Your task to perform on an android device: move an email to a new category in the gmail app Image 0: 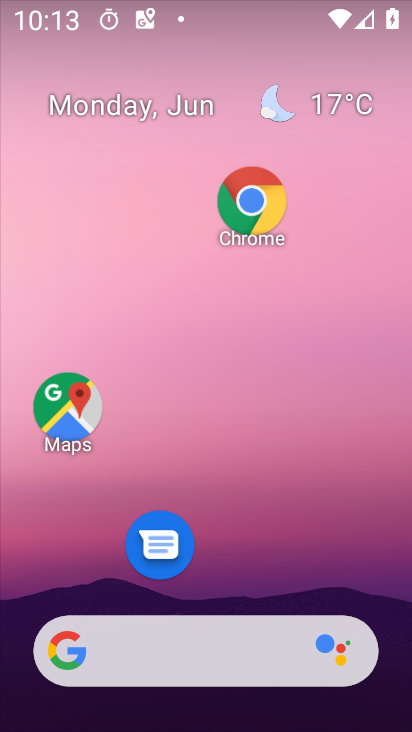
Step 0: drag from (228, 590) to (151, 48)
Your task to perform on an android device: move an email to a new category in the gmail app Image 1: 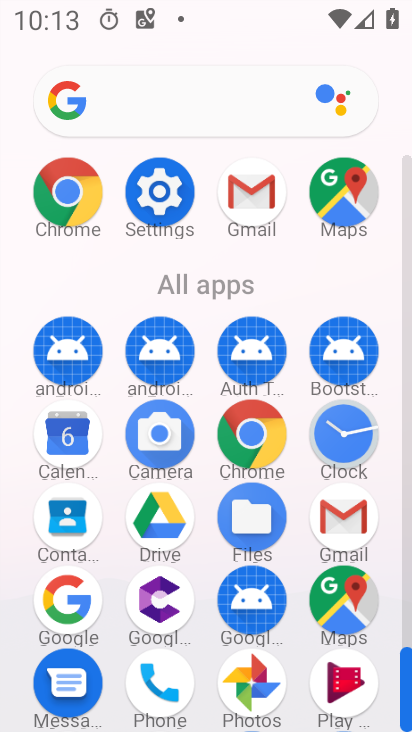
Step 1: click (338, 501)
Your task to perform on an android device: move an email to a new category in the gmail app Image 2: 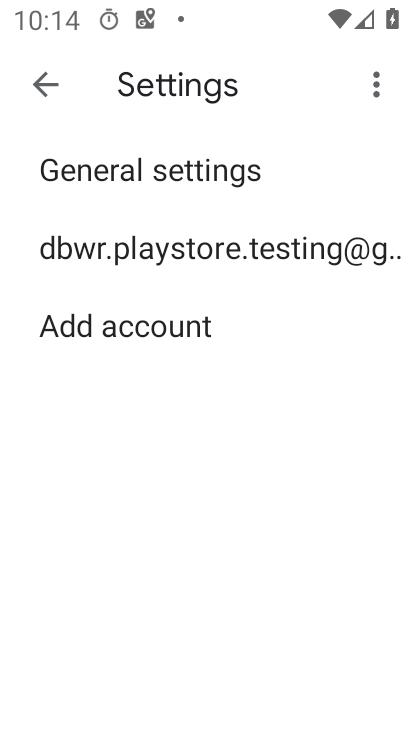
Step 2: click (34, 81)
Your task to perform on an android device: move an email to a new category in the gmail app Image 3: 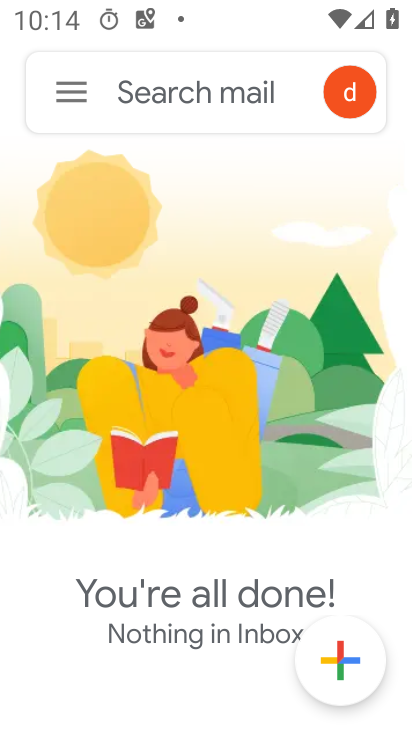
Step 3: click (71, 82)
Your task to perform on an android device: move an email to a new category in the gmail app Image 4: 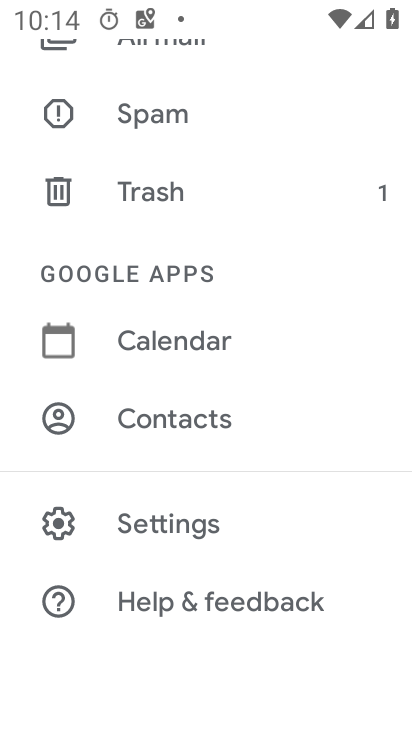
Step 4: drag from (135, 252) to (236, 621)
Your task to perform on an android device: move an email to a new category in the gmail app Image 5: 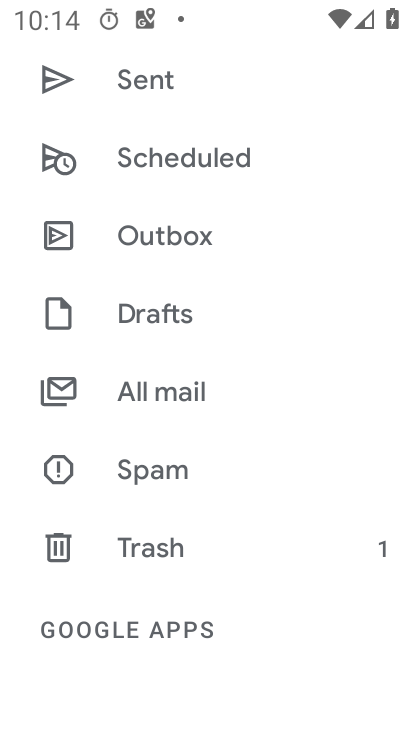
Step 5: click (163, 241)
Your task to perform on an android device: move an email to a new category in the gmail app Image 6: 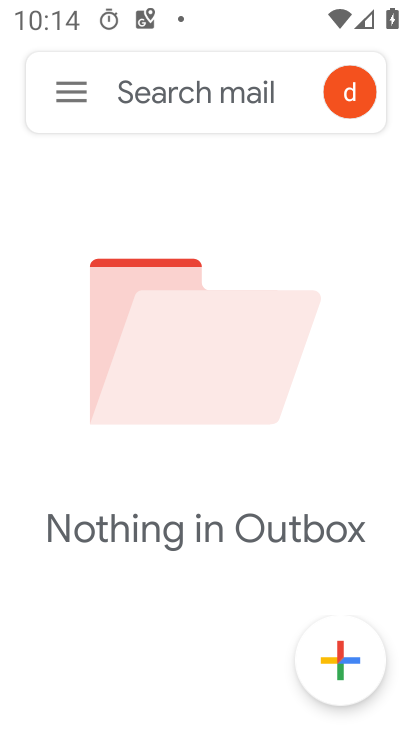
Step 6: task complete